Your task to perform on an android device: Go to settings Image 0: 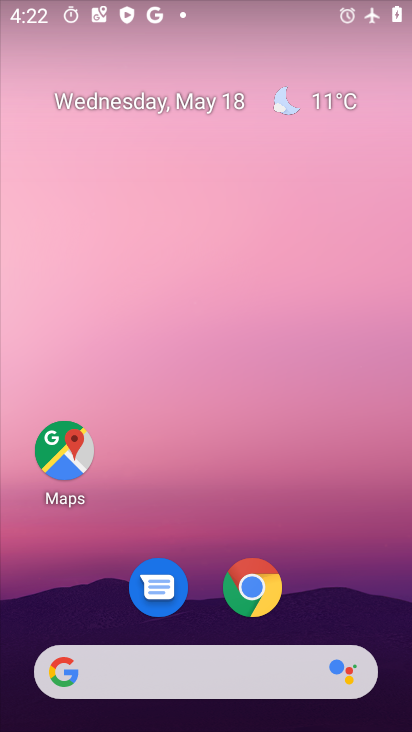
Step 0: drag from (191, 626) to (191, 310)
Your task to perform on an android device: Go to settings Image 1: 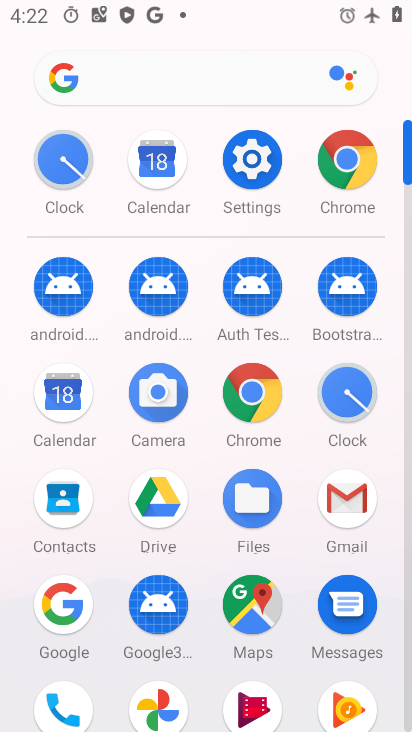
Step 1: click (257, 175)
Your task to perform on an android device: Go to settings Image 2: 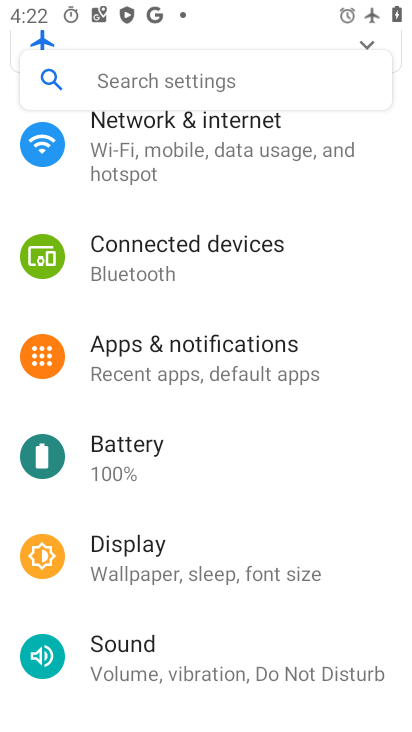
Step 2: task complete